Your task to perform on an android device: What's the weather? Image 0: 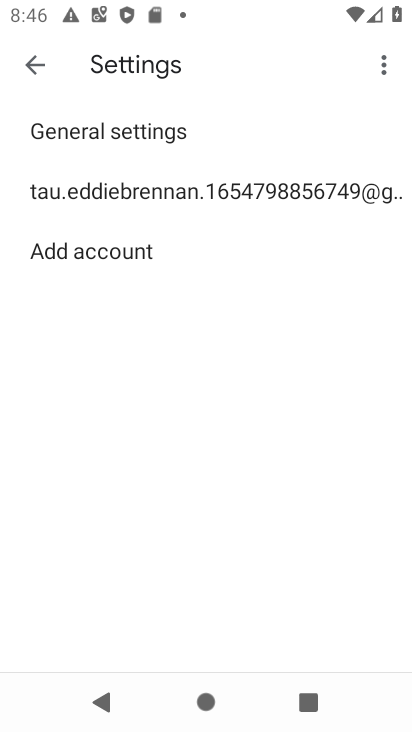
Step 0: press home button
Your task to perform on an android device: What's the weather? Image 1: 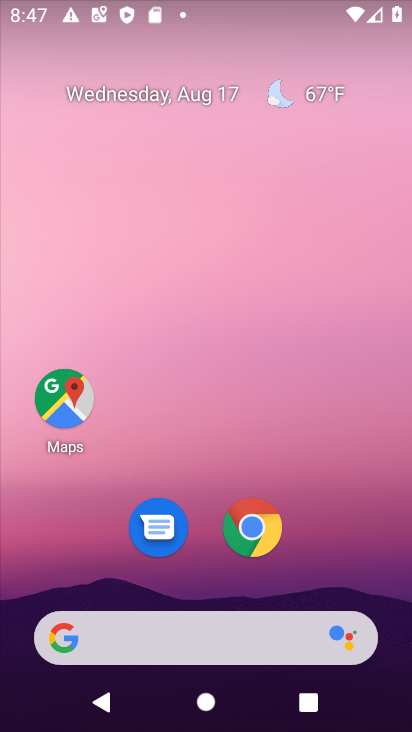
Step 1: click (283, 103)
Your task to perform on an android device: What's the weather? Image 2: 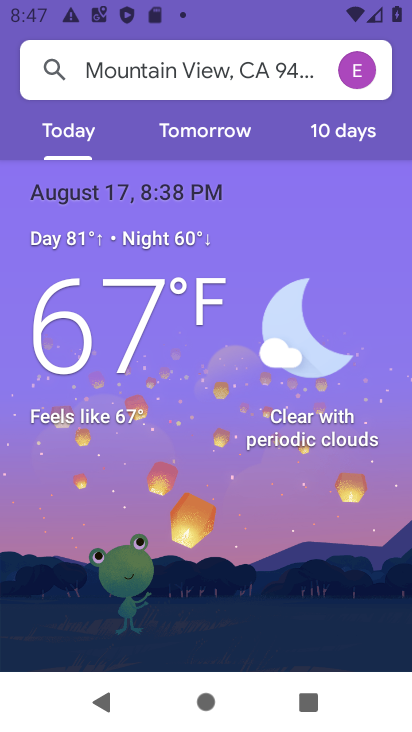
Step 2: task complete